Your task to perform on an android device: What's the weather going to be this weekend? Image 0: 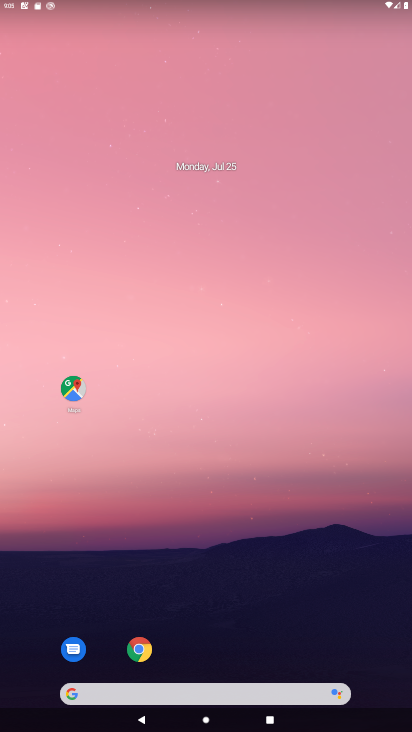
Step 0: click (212, 687)
Your task to perform on an android device: What's the weather going to be this weekend? Image 1: 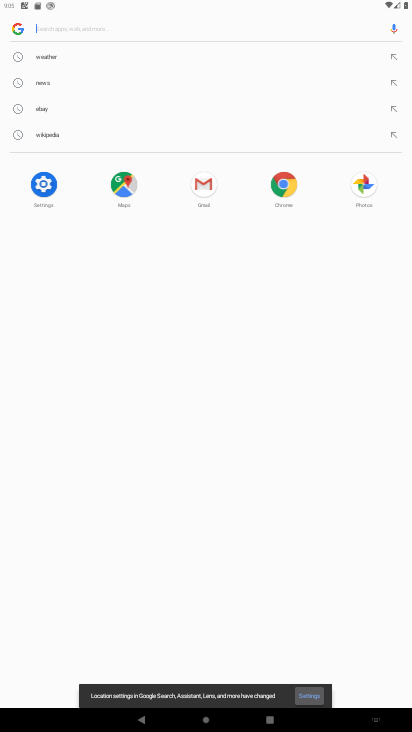
Step 1: click (56, 53)
Your task to perform on an android device: What's the weather going to be this weekend? Image 2: 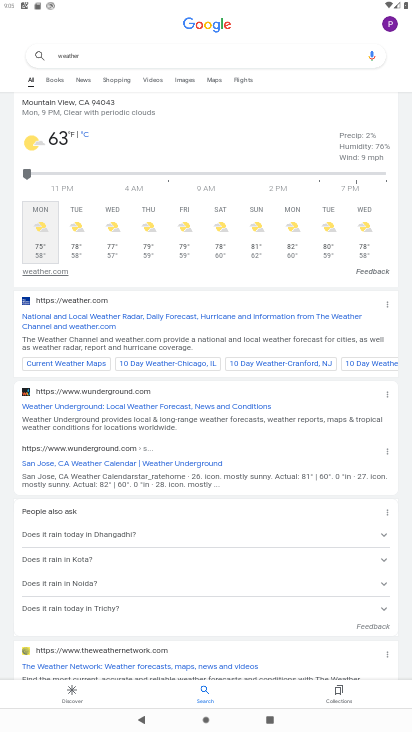
Step 2: task complete